Your task to perform on an android device: Go to network settings Image 0: 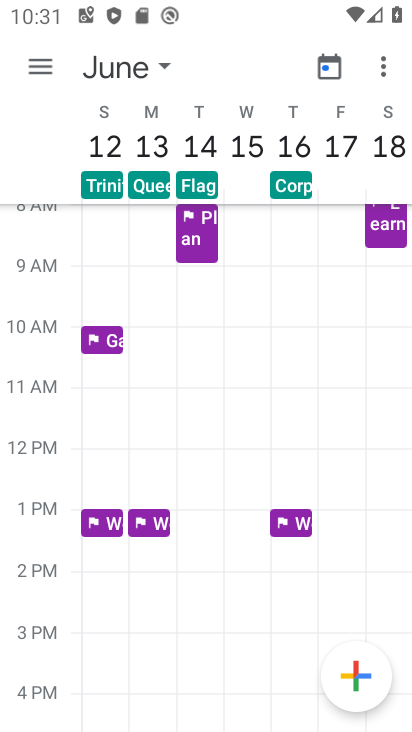
Step 0: press home button
Your task to perform on an android device: Go to network settings Image 1: 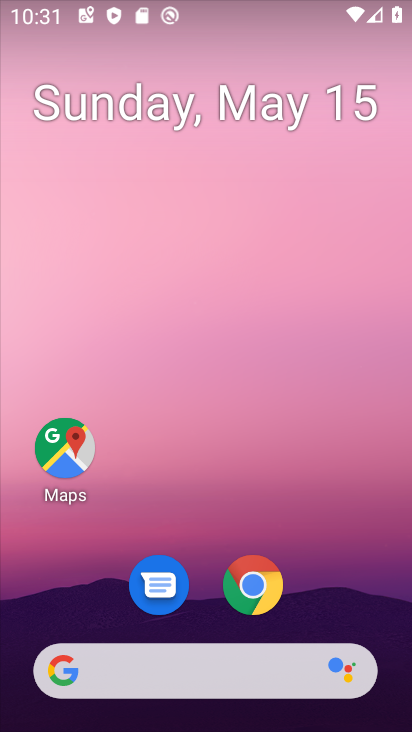
Step 1: drag from (219, 478) to (255, 54)
Your task to perform on an android device: Go to network settings Image 2: 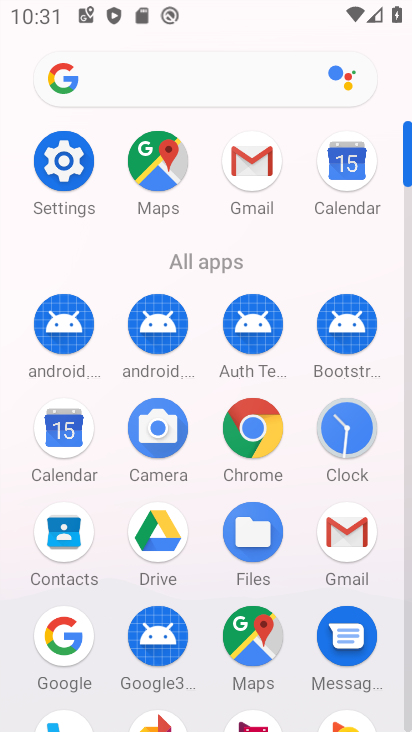
Step 2: click (74, 156)
Your task to perform on an android device: Go to network settings Image 3: 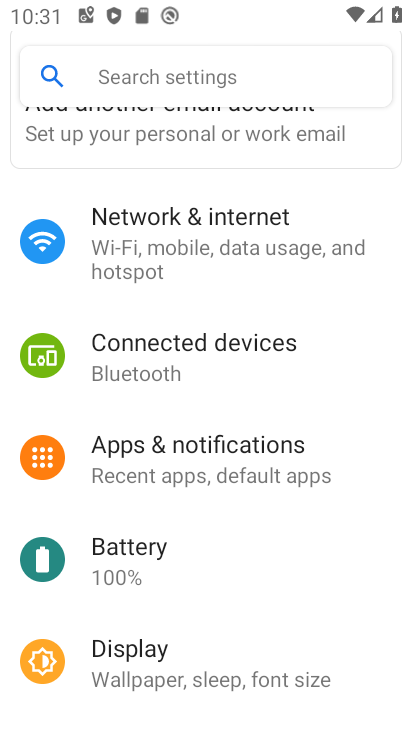
Step 3: click (175, 228)
Your task to perform on an android device: Go to network settings Image 4: 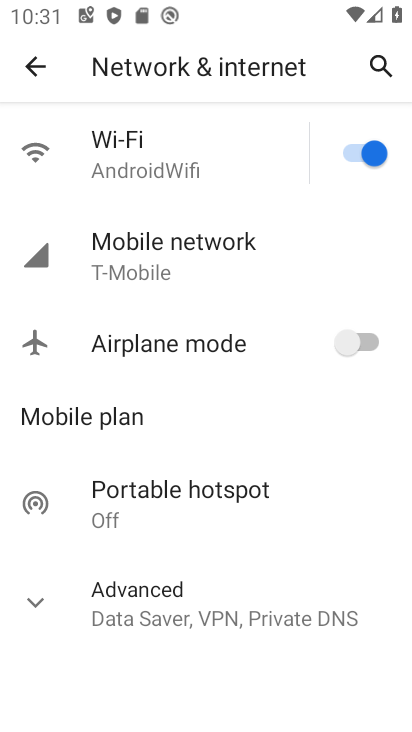
Step 4: task complete